Your task to perform on an android device: Open notification settings Image 0: 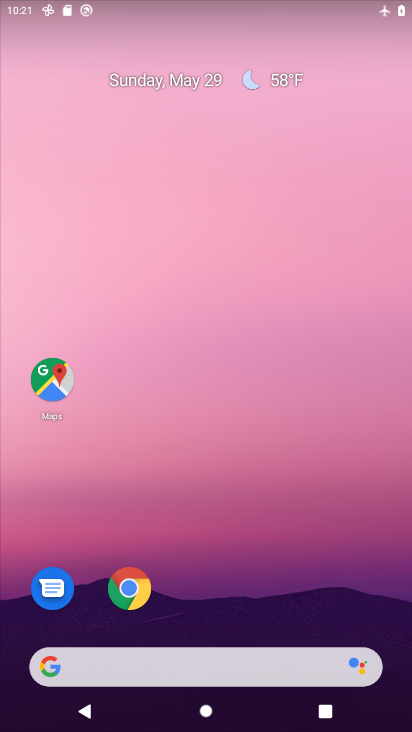
Step 0: drag from (266, 637) to (240, 175)
Your task to perform on an android device: Open notification settings Image 1: 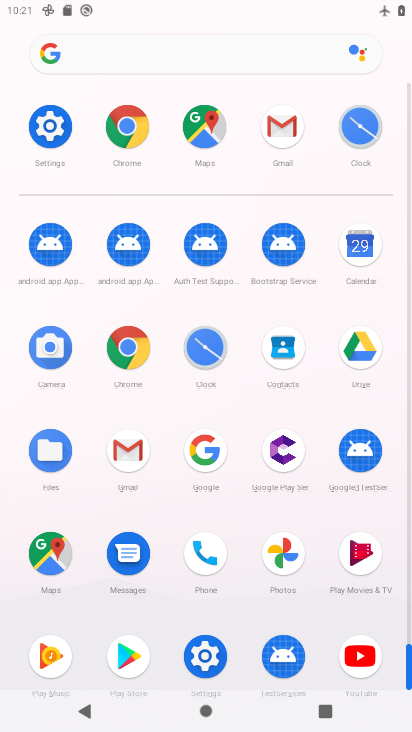
Step 1: click (50, 128)
Your task to perform on an android device: Open notification settings Image 2: 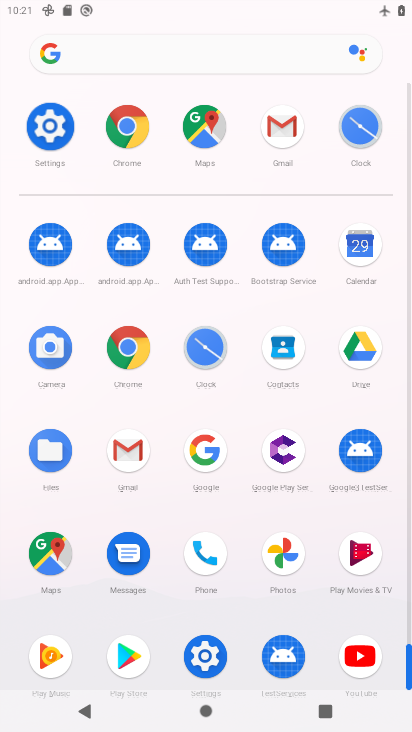
Step 2: click (66, 124)
Your task to perform on an android device: Open notification settings Image 3: 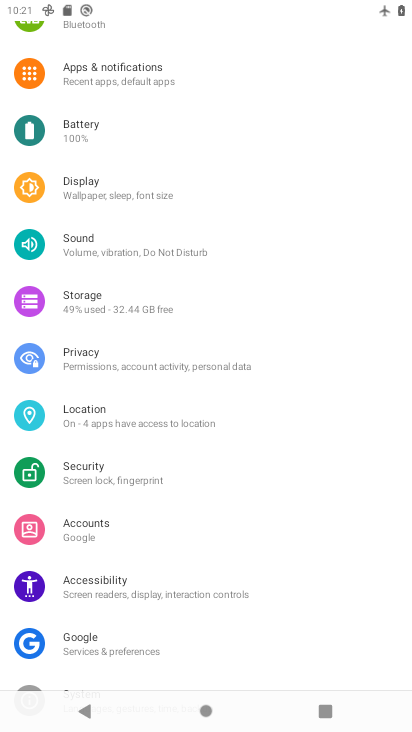
Step 3: click (111, 80)
Your task to perform on an android device: Open notification settings Image 4: 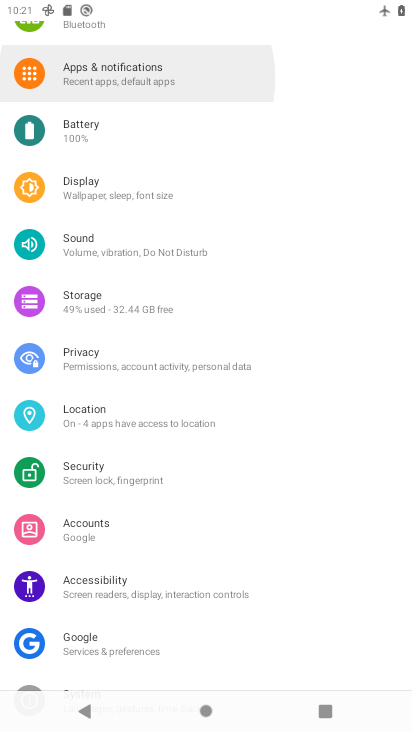
Step 4: click (111, 80)
Your task to perform on an android device: Open notification settings Image 5: 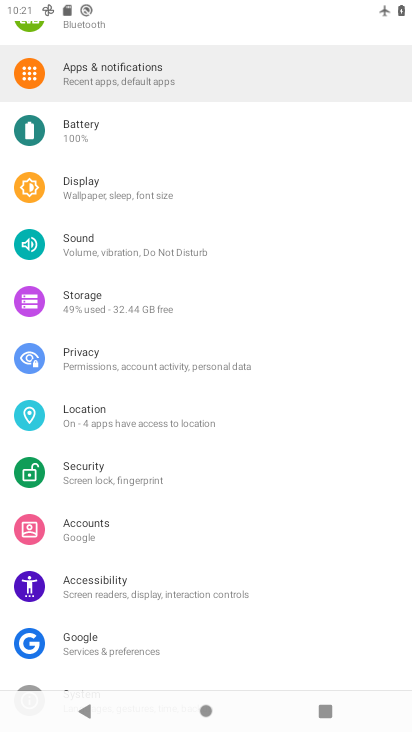
Step 5: click (111, 80)
Your task to perform on an android device: Open notification settings Image 6: 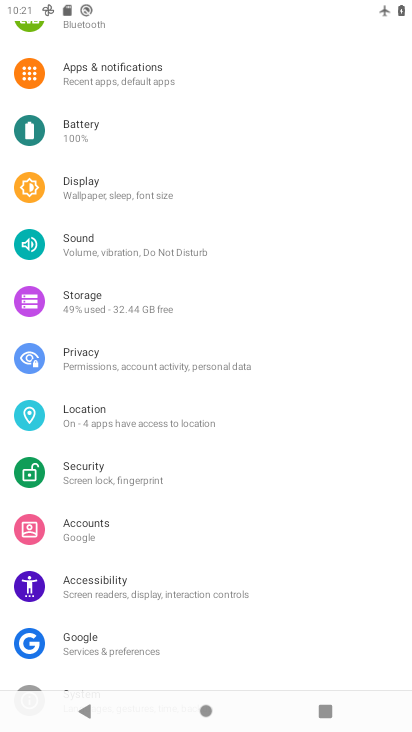
Step 6: click (111, 80)
Your task to perform on an android device: Open notification settings Image 7: 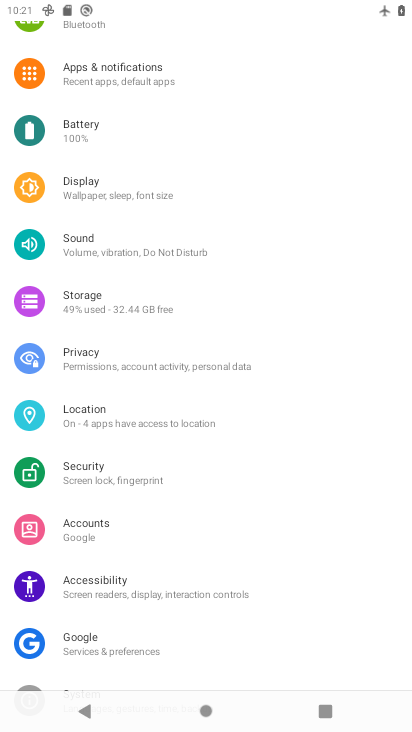
Step 7: click (114, 79)
Your task to perform on an android device: Open notification settings Image 8: 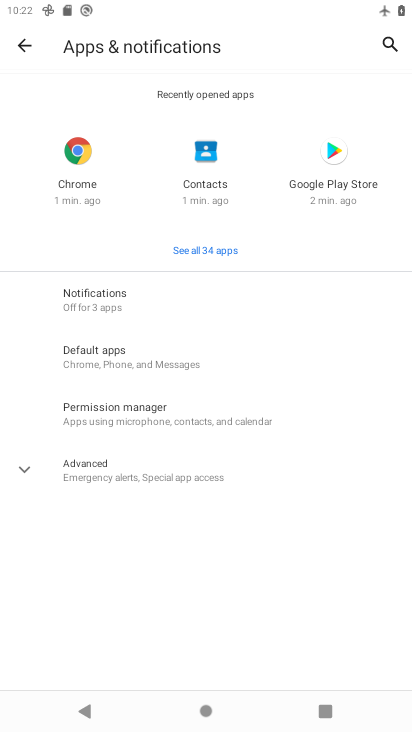
Step 8: click (91, 308)
Your task to perform on an android device: Open notification settings Image 9: 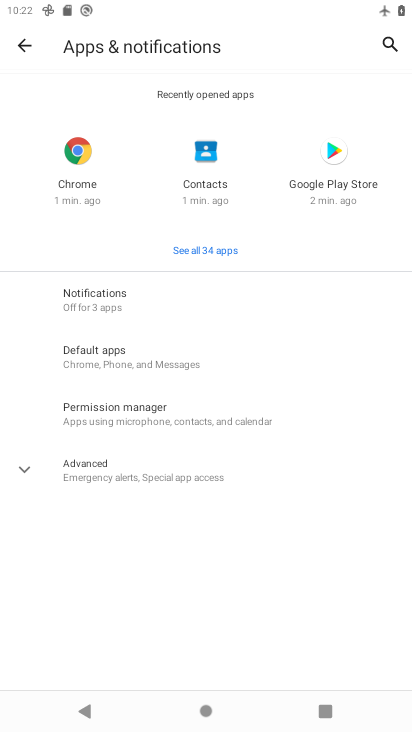
Step 9: click (91, 308)
Your task to perform on an android device: Open notification settings Image 10: 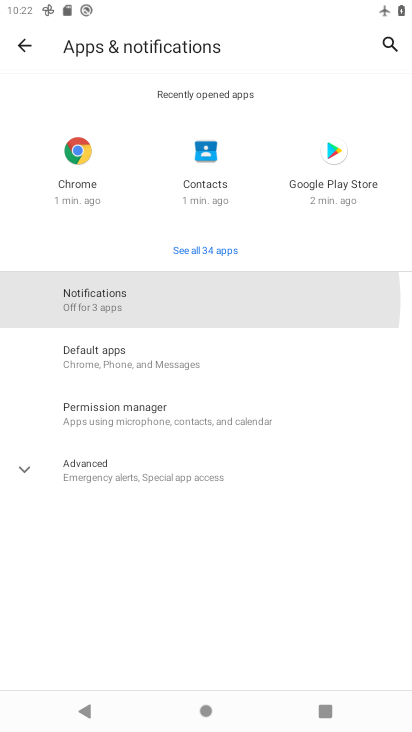
Step 10: click (91, 308)
Your task to perform on an android device: Open notification settings Image 11: 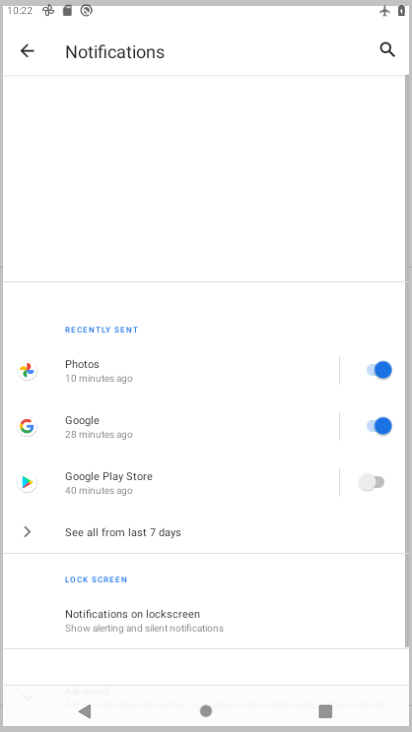
Step 11: click (94, 306)
Your task to perform on an android device: Open notification settings Image 12: 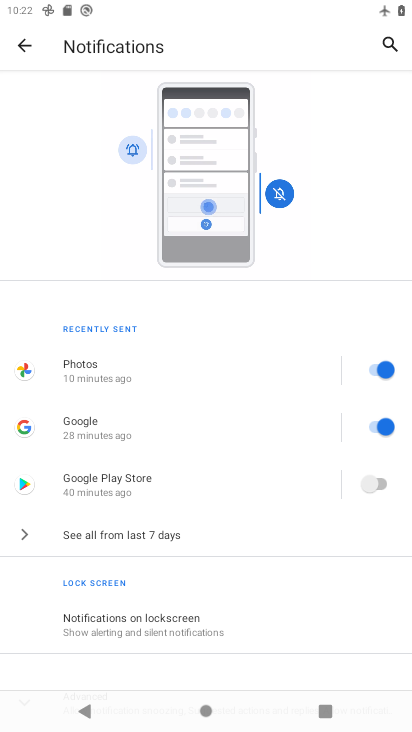
Step 12: task complete